Your task to perform on an android device: turn off notifications in google photos Image 0: 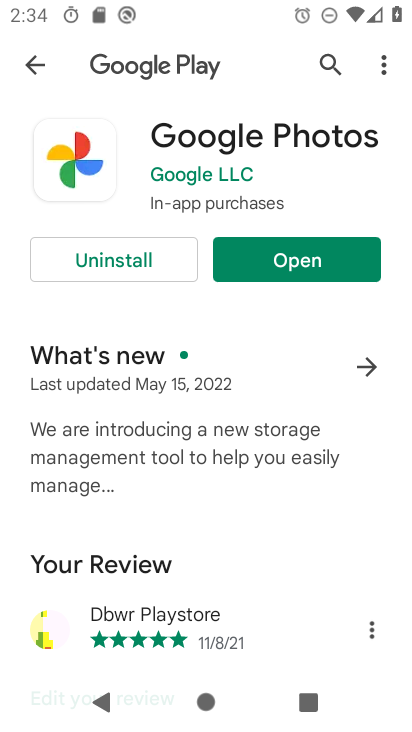
Step 0: click (278, 263)
Your task to perform on an android device: turn off notifications in google photos Image 1: 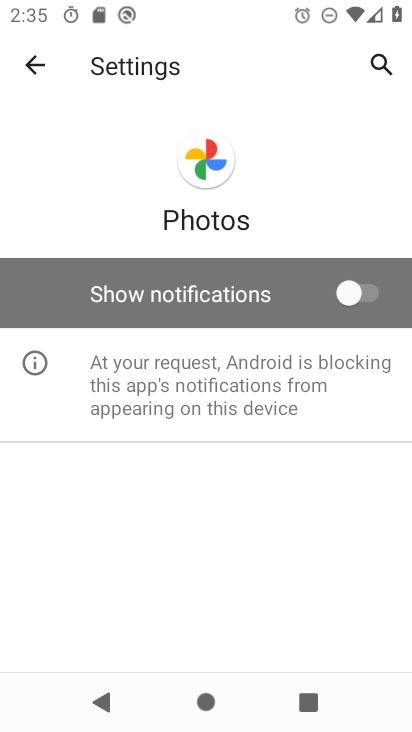
Step 1: task complete